Your task to perform on an android device: turn off javascript in the chrome app Image 0: 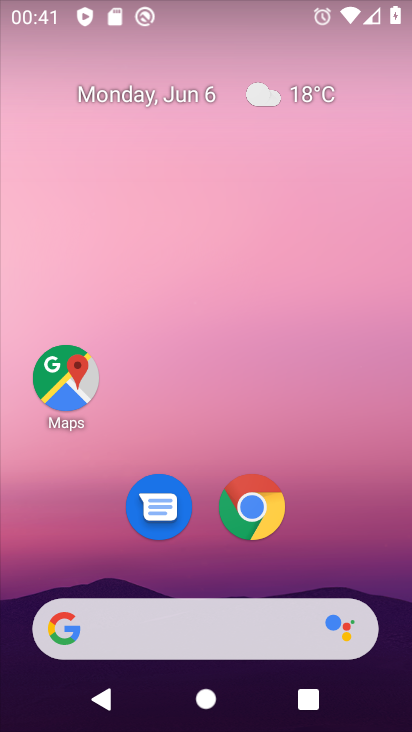
Step 0: click (259, 504)
Your task to perform on an android device: turn off javascript in the chrome app Image 1: 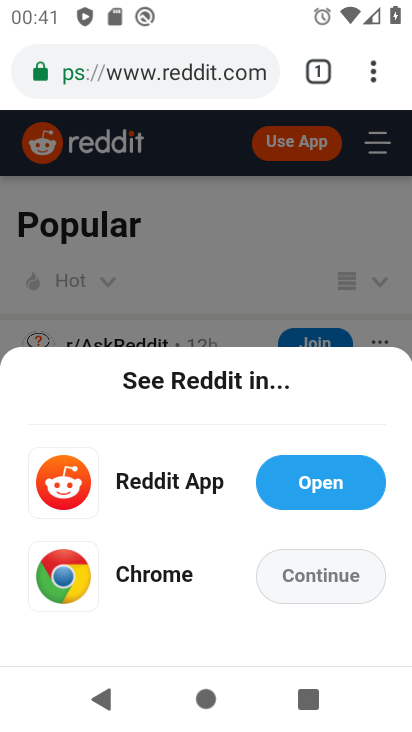
Step 1: click (372, 77)
Your task to perform on an android device: turn off javascript in the chrome app Image 2: 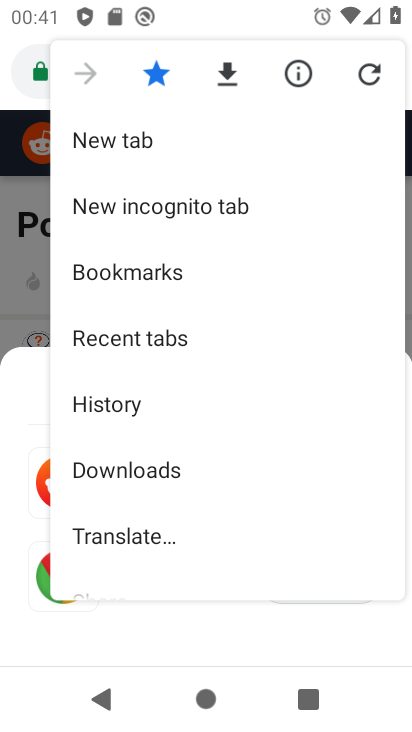
Step 2: drag from (165, 529) to (225, 215)
Your task to perform on an android device: turn off javascript in the chrome app Image 3: 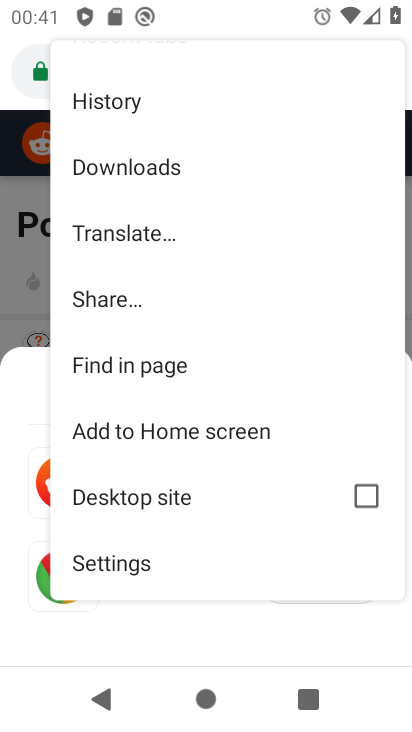
Step 3: click (144, 563)
Your task to perform on an android device: turn off javascript in the chrome app Image 4: 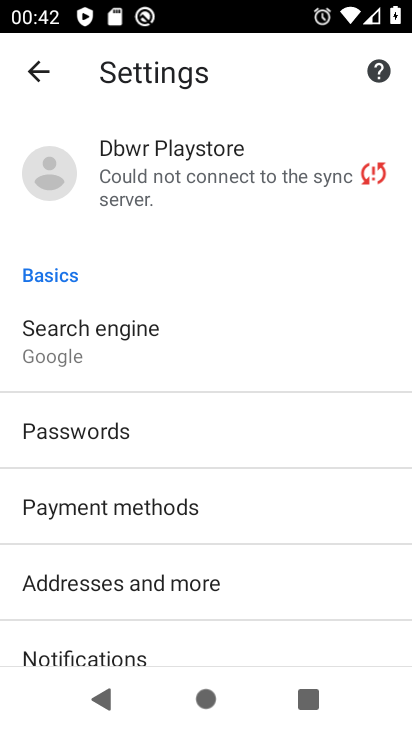
Step 4: drag from (160, 619) to (222, 261)
Your task to perform on an android device: turn off javascript in the chrome app Image 5: 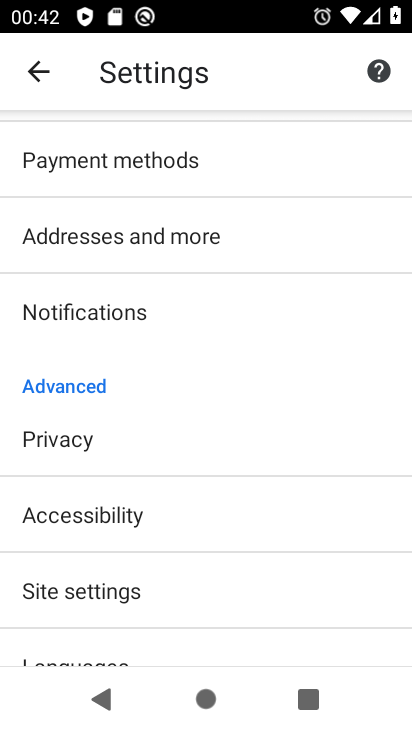
Step 5: click (104, 596)
Your task to perform on an android device: turn off javascript in the chrome app Image 6: 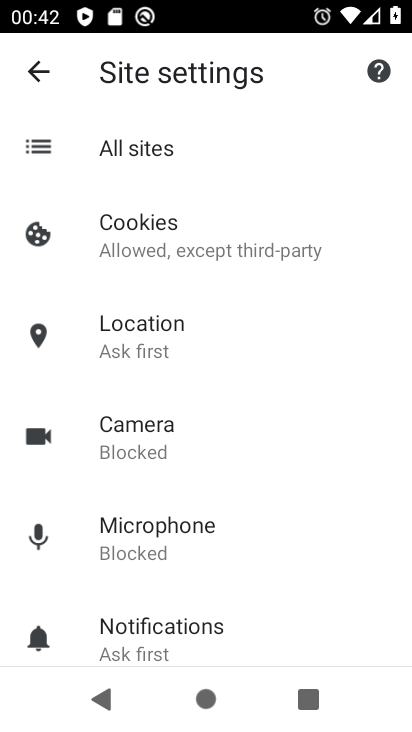
Step 6: drag from (173, 567) to (215, 345)
Your task to perform on an android device: turn off javascript in the chrome app Image 7: 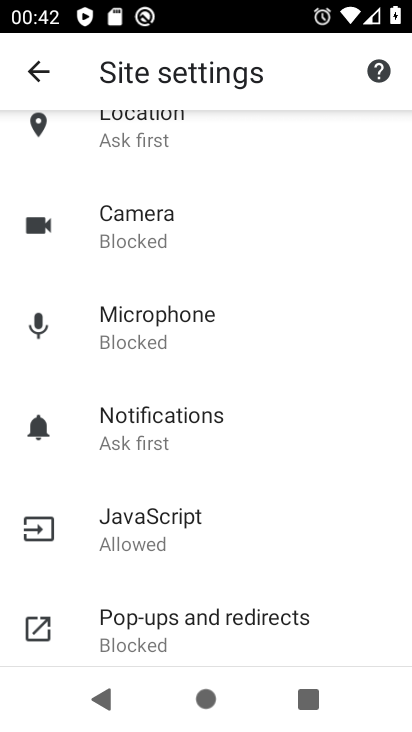
Step 7: click (167, 533)
Your task to perform on an android device: turn off javascript in the chrome app Image 8: 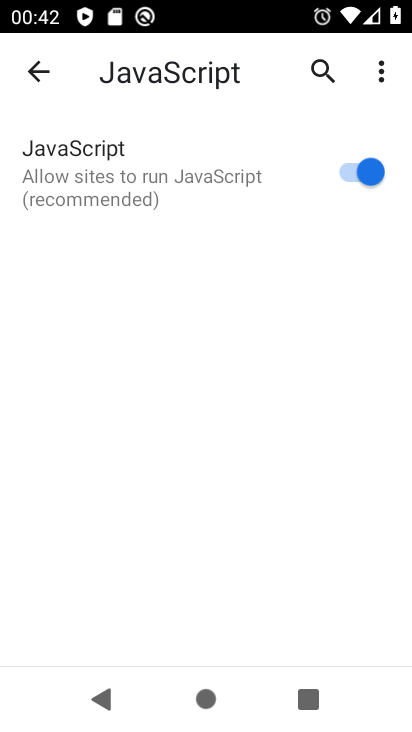
Step 8: click (337, 182)
Your task to perform on an android device: turn off javascript in the chrome app Image 9: 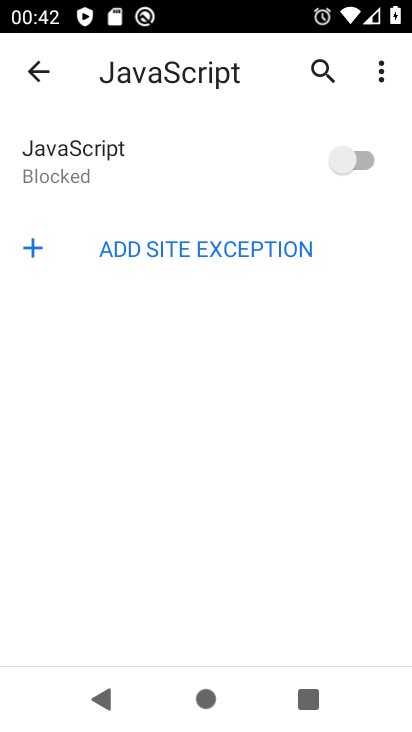
Step 9: task complete